Your task to perform on an android device: Search for pizza restaurants on Maps Image 0: 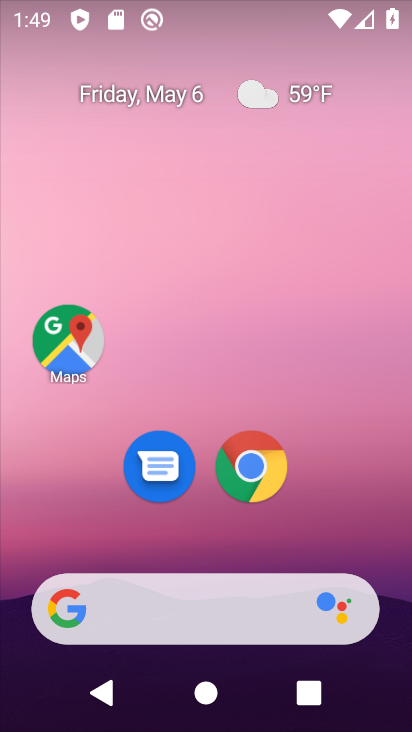
Step 0: drag from (214, 549) to (226, 34)
Your task to perform on an android device: Search for pizza restaurants on Maps Image 1: 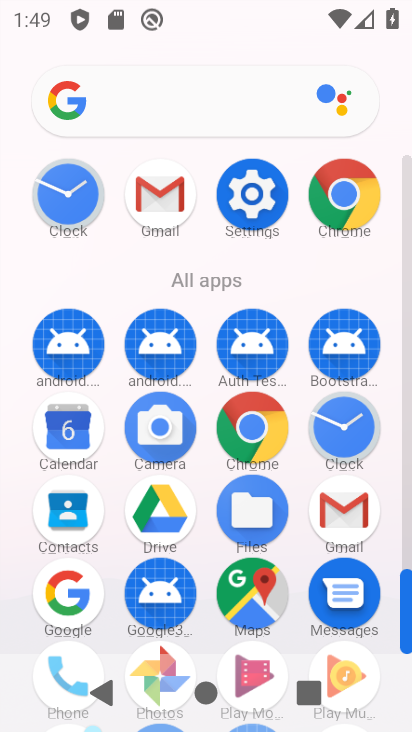
Step 1: click (250, 586)
Your task to perform on an android device: Search for pizza restaurants on Maps Image 2: 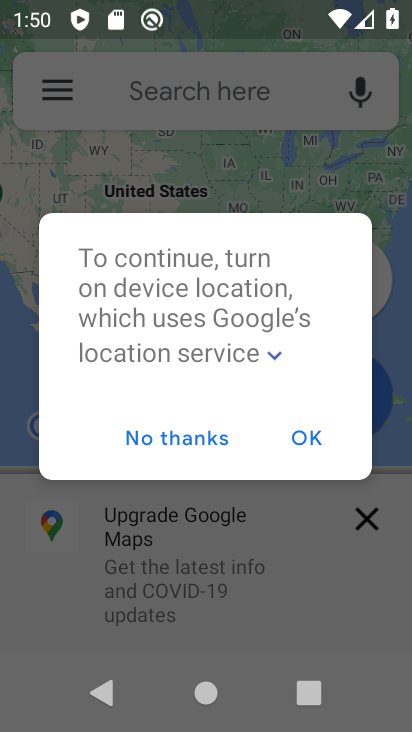
Step 2: press home button
Your task to perform on an android device: Search for pizza restaurants on Maps Image 3: 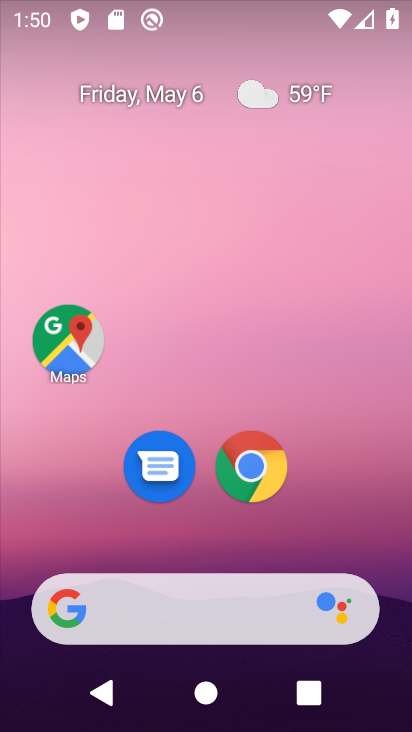
Step 3: drag from (208, 555) to (236, 64)
Your task to perform on an android device: Search for pizza restaurants on Maps Image 4: 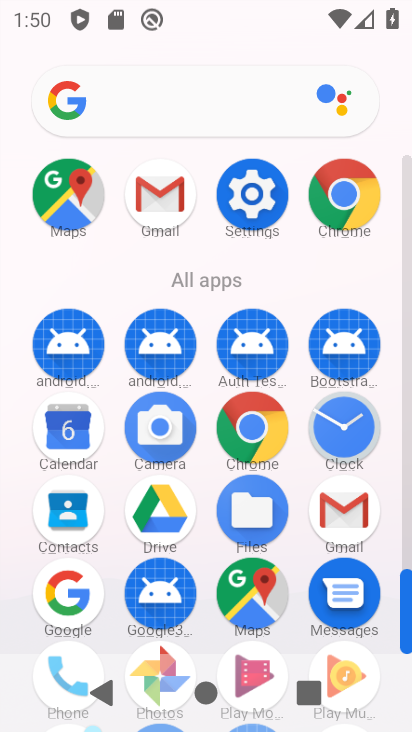
Step 4: click (257, 591)
Your task to perform on an android device: Search for pizza restaurants on Maps Image 5: 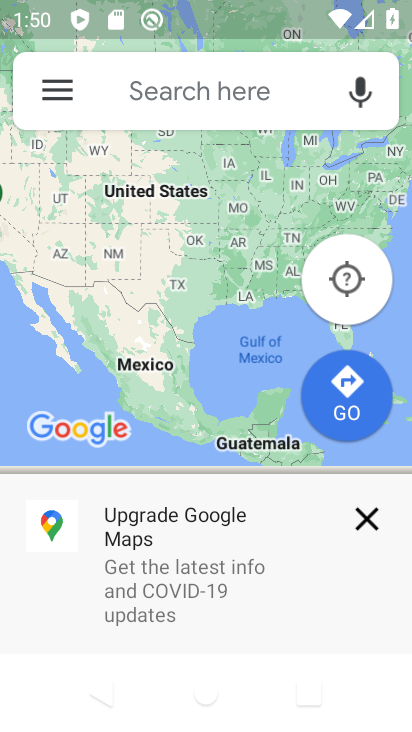
Step 5: click (171, 88)
Your task to perform on an android device: Search for pizza restaurants on Maps Image 6: 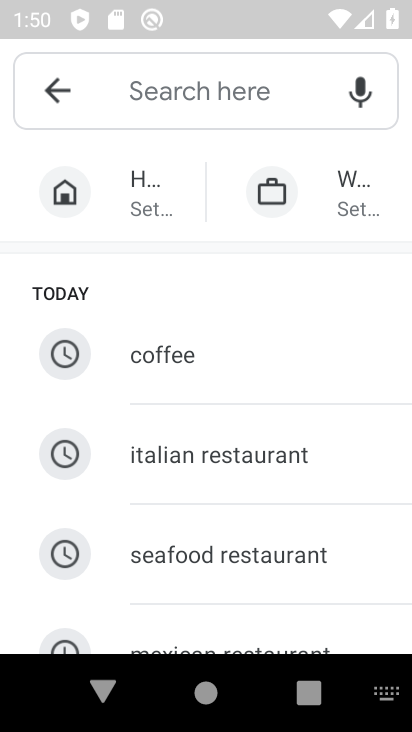
Step 6: drag from (194, 593) to (211, 199)
Your task to perform on an android device: Search for pizza restaurants on Maps Image 7: 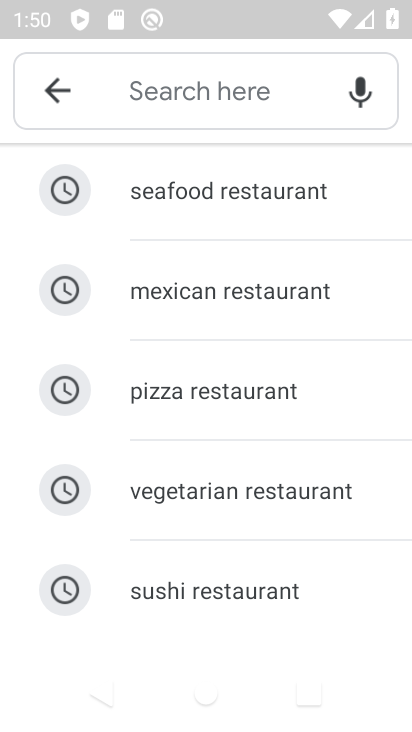
Step 7: click (122, 388)
Your task to perform on an android device: Search for pizza restaurants on Maps Image 8: 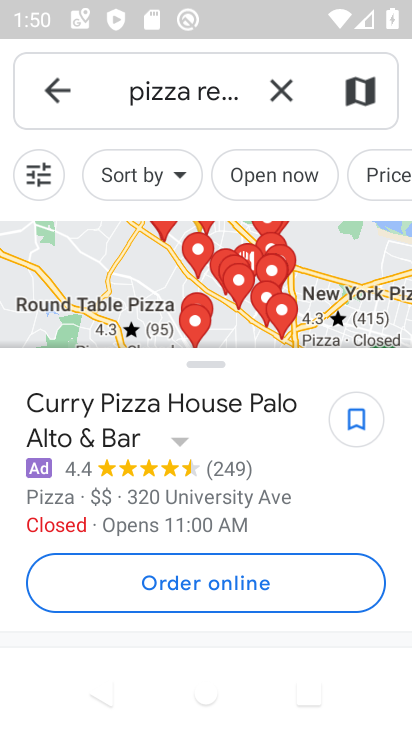
Step 8: task complete